Your task to perform on an android device: toggle location history Image 0: 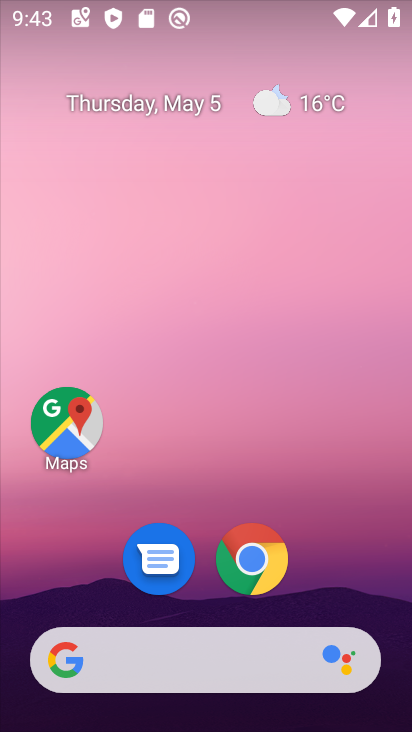
Step 0: drag from (270, 600) to (275, 8)
Your task to perform on an android device: toggle location history Image 1: 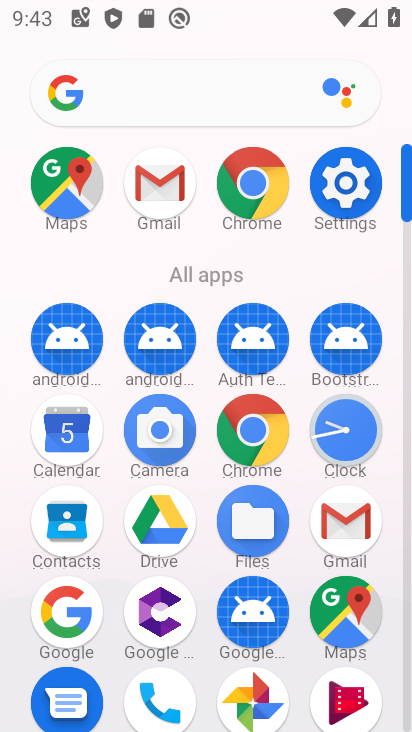
Step 1: click (347, 177)
Your task to perform on an android device: toggle location history Image 2: 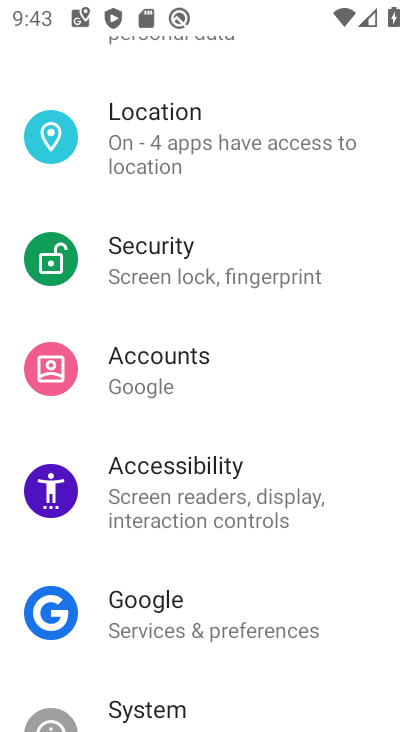
Step 2: click (190, 170)
Your task to perform on an android device: toggle location history Image 3: 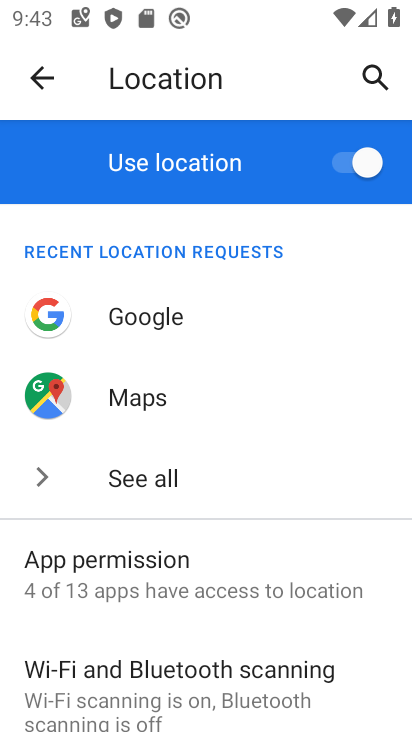
Step 3: drag from (188, 594) to (203, 350)
Your task to perform on an android device: toggle location history Image 4: 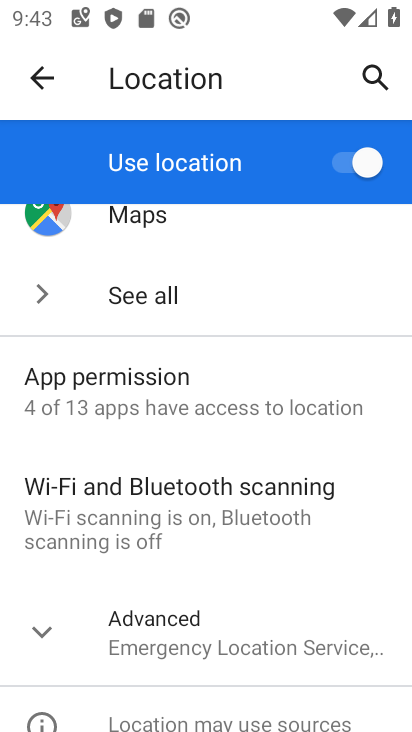
Step 4: drag from (220, 612) to (237, 281)
Your task to perform on an android device: toggle location history Image 5: 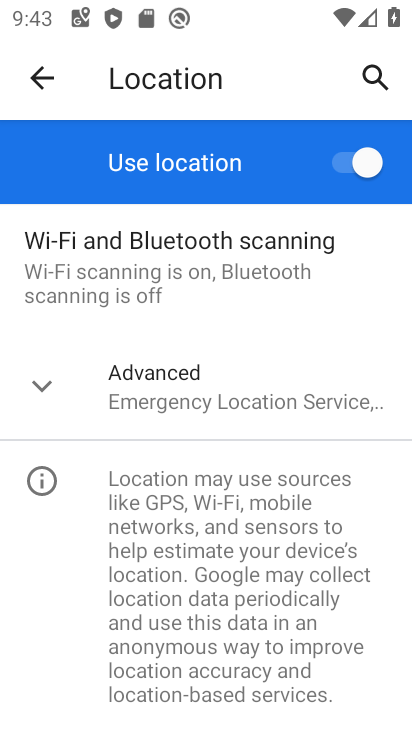
Step 5: click (167, 380)
Your task to perform on an android device: toggle location history Image 6: 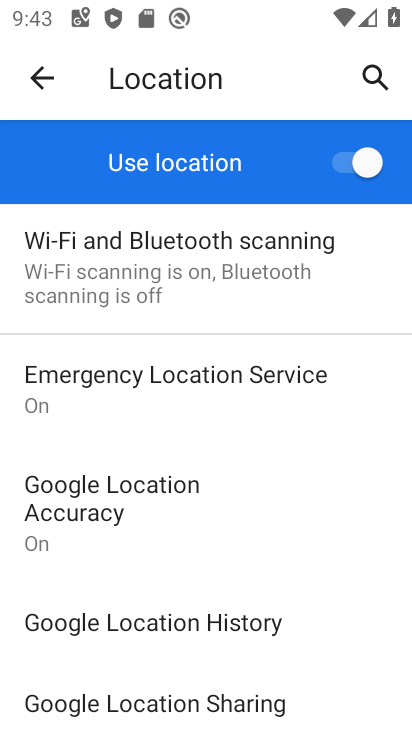
Step 6: click (183, 637)
Your task to perform on an android device: toggle location history Image 7: 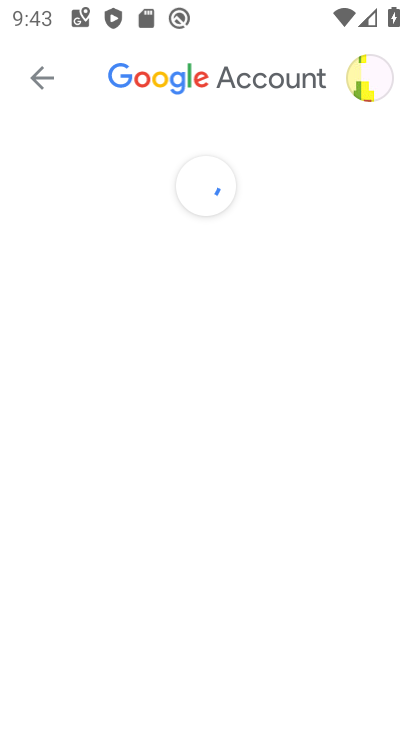
Step 7: drag from (244, 548) to (241, 255)
Your task to perform on an android device: toggle location history Image 8: 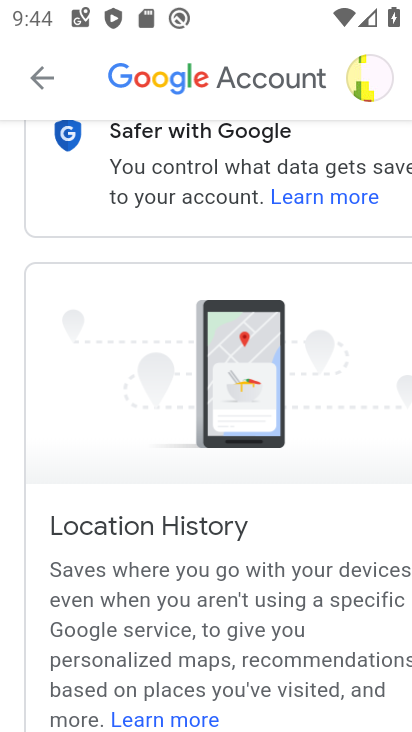
Step 8: drag from (230, 534) to (228, 188)
Your task to perform on an android device: toggle location history Image 9: 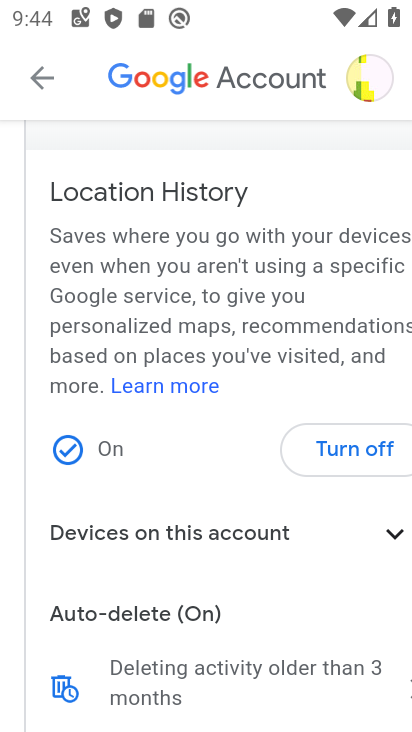
Step 9: click (329, 459)
Your task to perform on an android device: toggle location history Image 10: 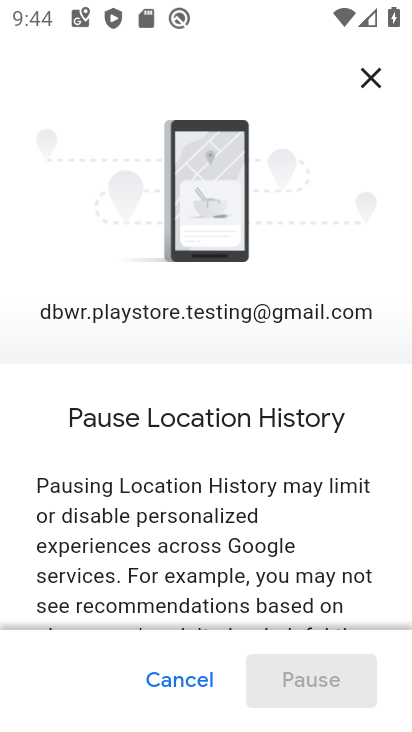
Step 10: drag from (251, 576) to (260, 169)
Your task to perform on an android device: toggle location history Image 11: 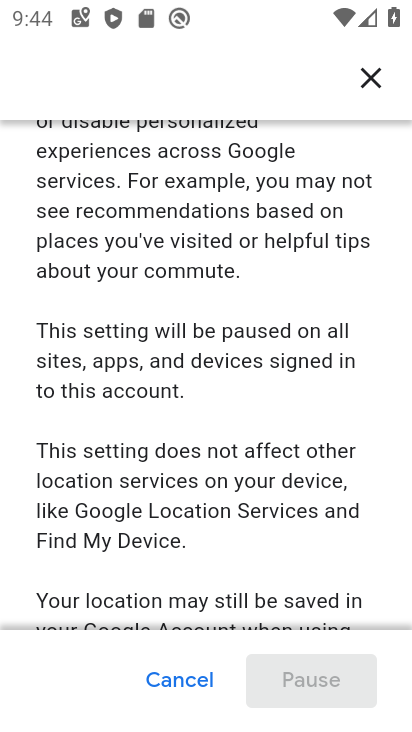
Step 11: drag from (210, 534) to (225, 190)
Your task to perform on an android device: toggle location history Image 12: 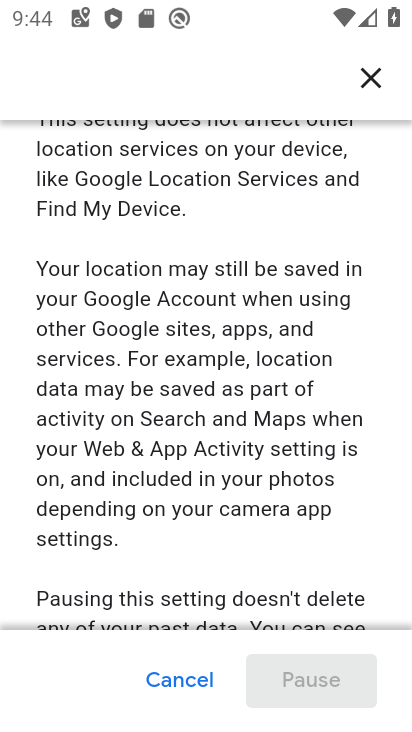
Step 12: drag from (262, 559) to (294, 93)
Your task to perform on an android device: toggle location history Image 13: 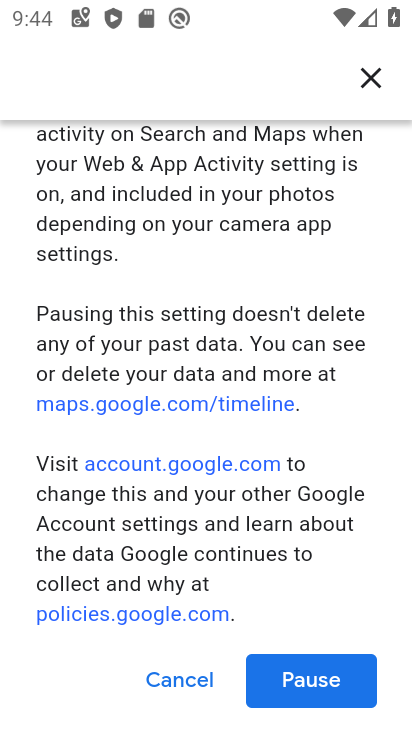
Step 13: drag from (280, 516) to (296, 97)
Your task to perform on an android device: toggle location history Image 14: 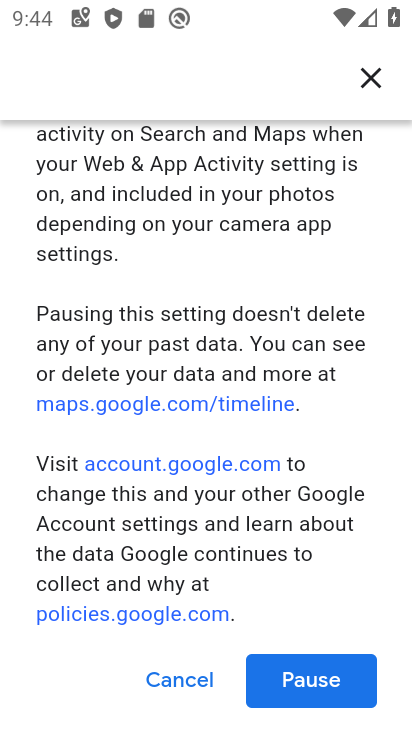
Step 14: click (330, 693)
Your task to perform on an android device: toggle location history Image 15: 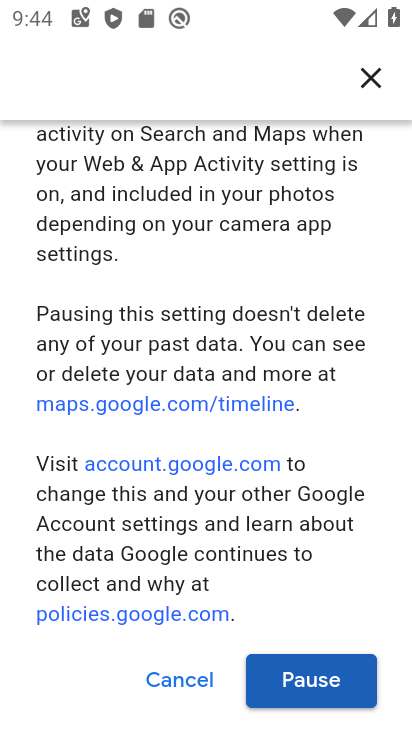
Step 15: click (317, 681)
Your task to perform on an android device: toggle location history Image 16: 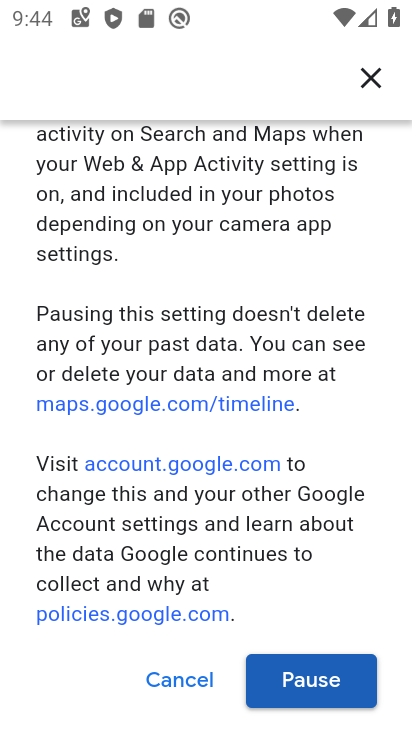
Step 16: click (318, 680)
Your task to perform on an android device: toggle location history Image 17: 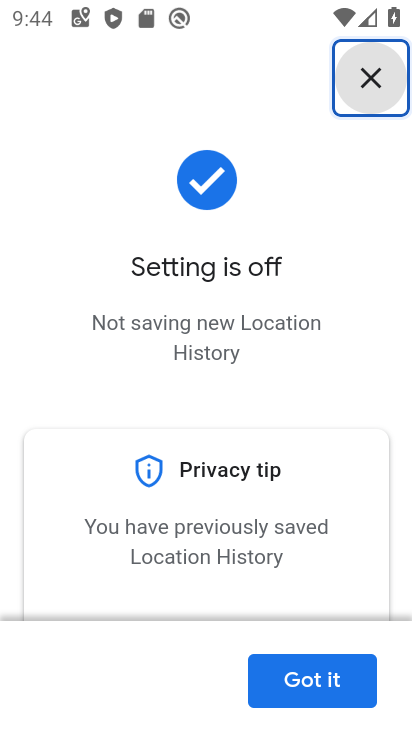
Step 17: click (311, 684)
Your task to perform on an android device: toggle location history Image 18: 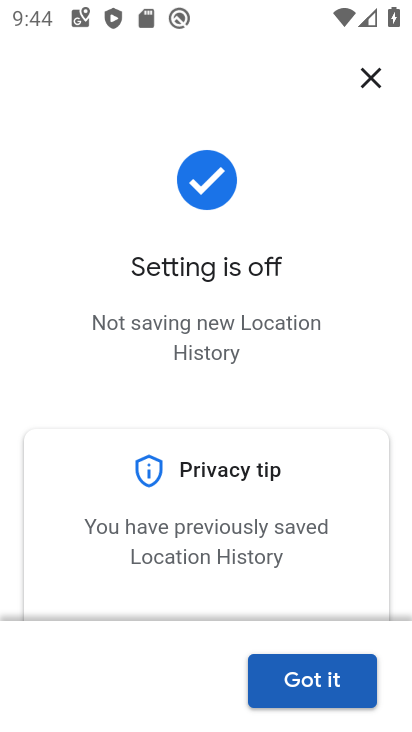
Step 18: click (320, 679)
Your task to perform on an android device: toggle location history Image 19: 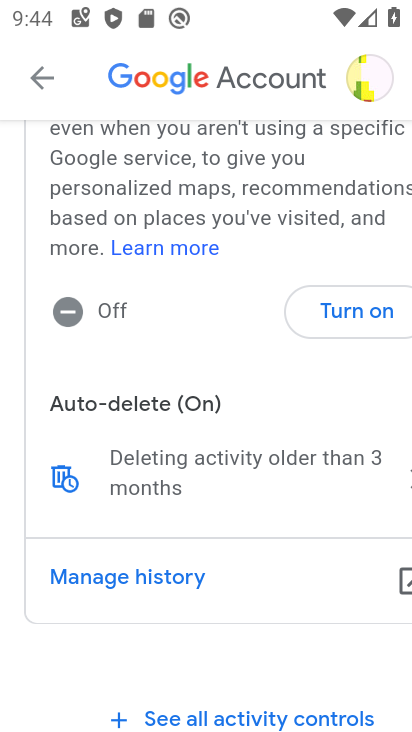
Step 19: task complete